Your task to perform on an android device: toggle notification dots Image 0: 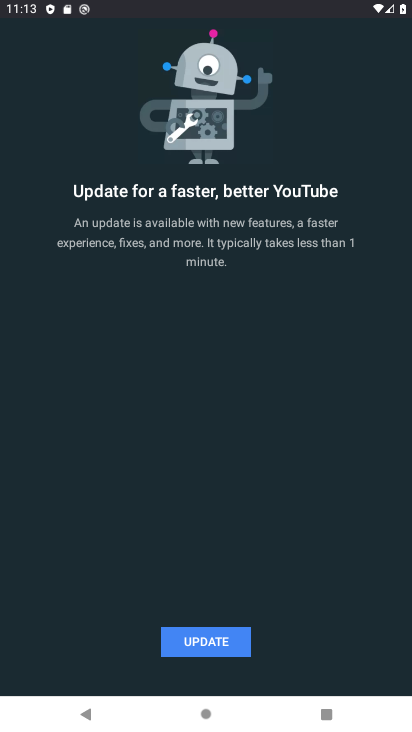
Step 0: press back button
Your task to perform on an android device: toggle notification dots Image 1: 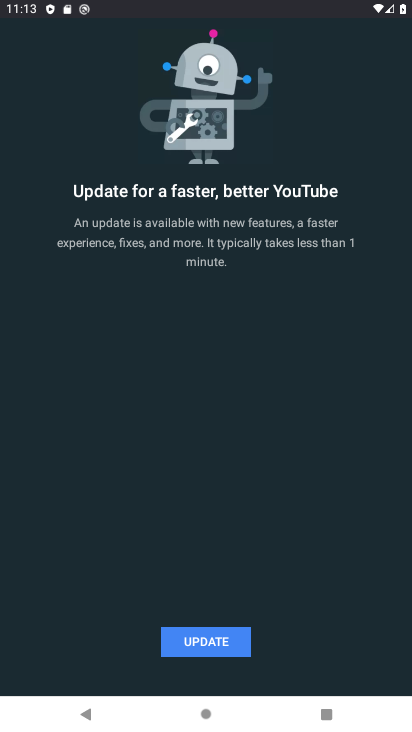
Step 1: press back button
Your task to perform on an android device: toggle notification dots Image 2: 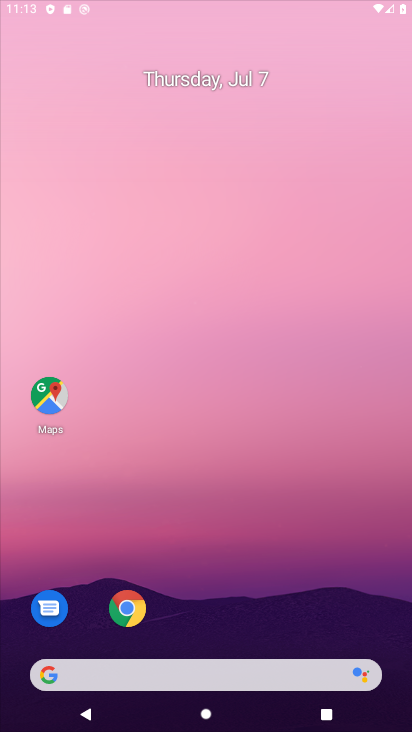
Step 2: press back button
Your task to perform on an android device: toggle notification dots Image 3: 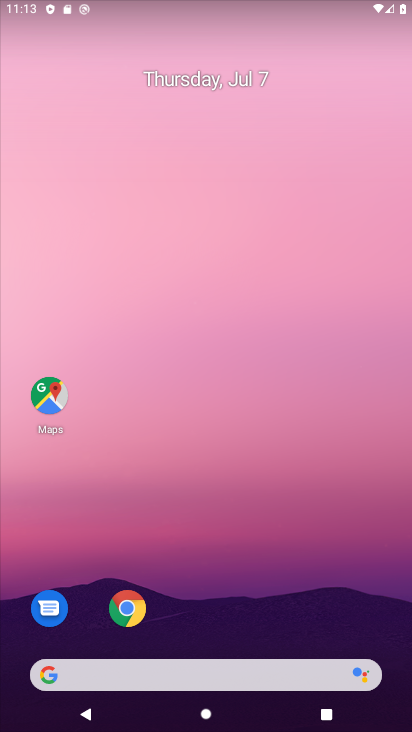
Step 3: drag from (272, 645) to (235, 80)
Your task to perform on an android device: toggle notification dots Image 4: 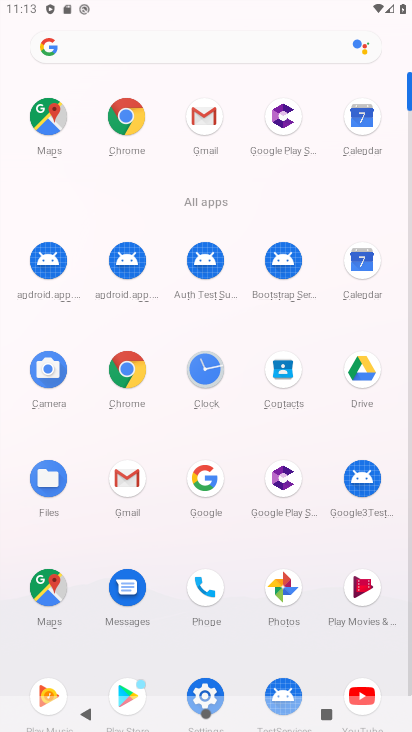
Step 4: drag from (253, 575) to (197, 197)
Your task to perform on an android device: toggle notification dots Image 5: 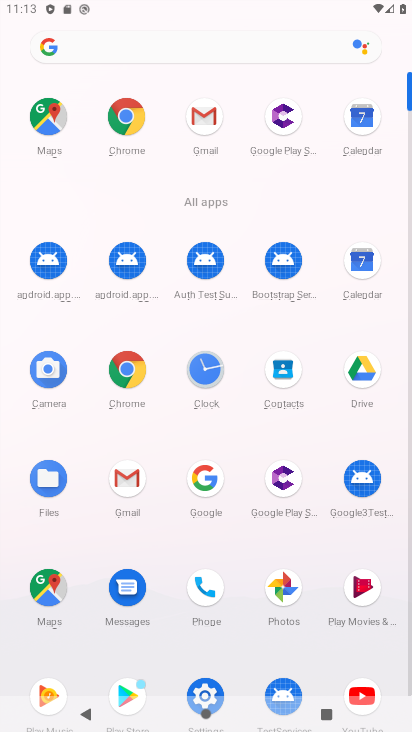
Step 5: drag from (247, 416) to (231, 243)
Your task to perform on an android device: toggle notification dots Image 6: 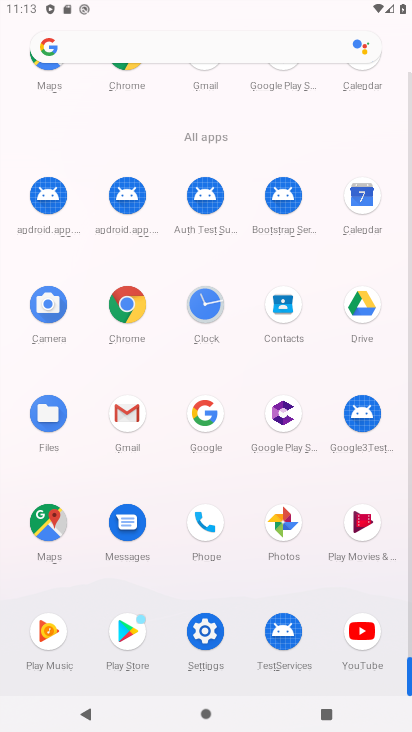
Step 6: click (205, 627)
Your task to perform on an android device: toggle notification dots Image 7: 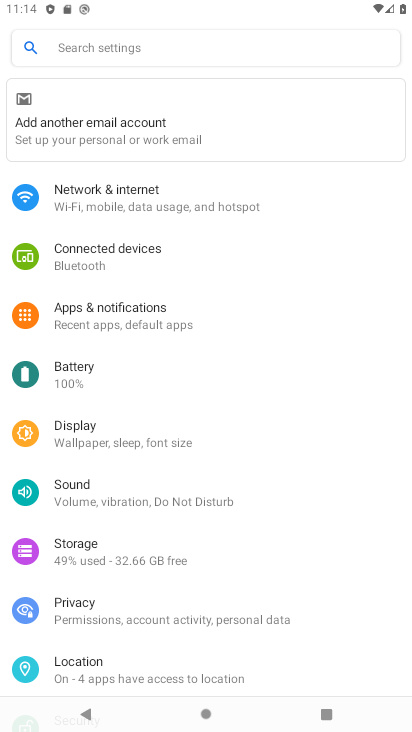
Step 7: drag from (134, 580) to (95, 205)
Your task to perform on an android device: toggle notification dots Image 8: 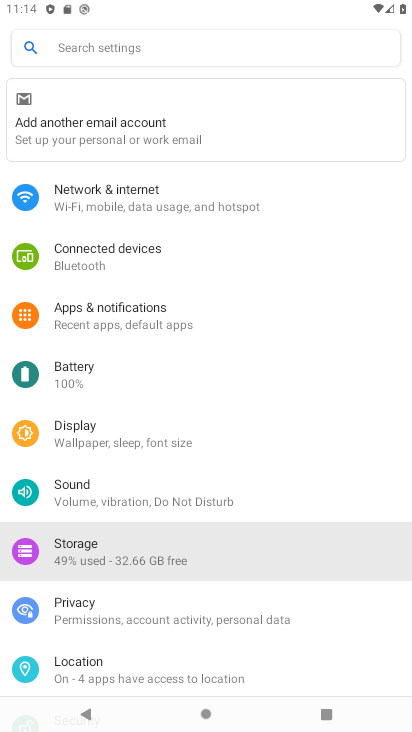
Step 8: drag from (133, 395) to (118, 190)
Your task to perform on an android device: toggle notification dots Image 9: 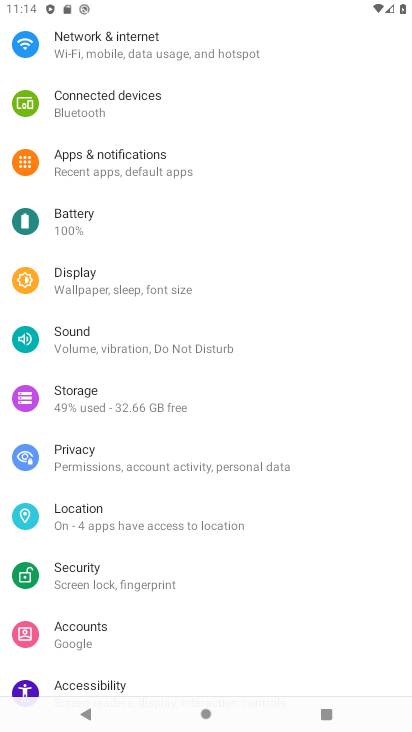
Step 9: click (130, 151)
Your task to perform on an android device: toggle notification dots Image 10: 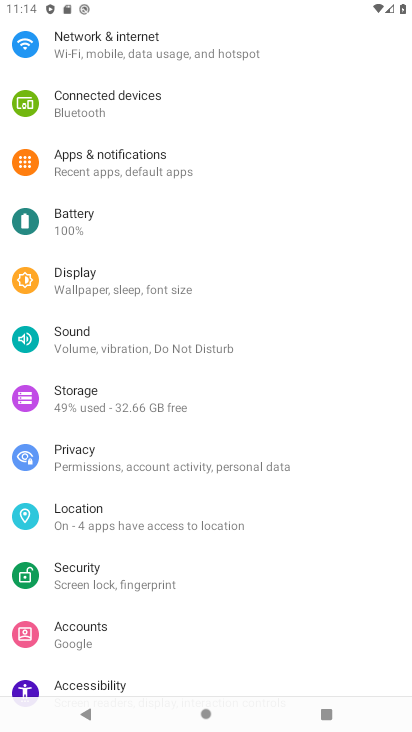
Step 10: click (135, 157)
Your task to perform on an android device: toggle notification dots Image 11: 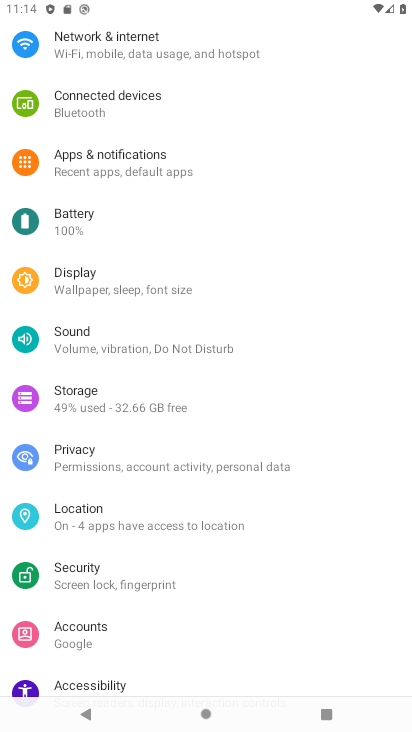
Step 11: click (137, 156)
Your task to perform on an android device: toggle notification dots Image 12: 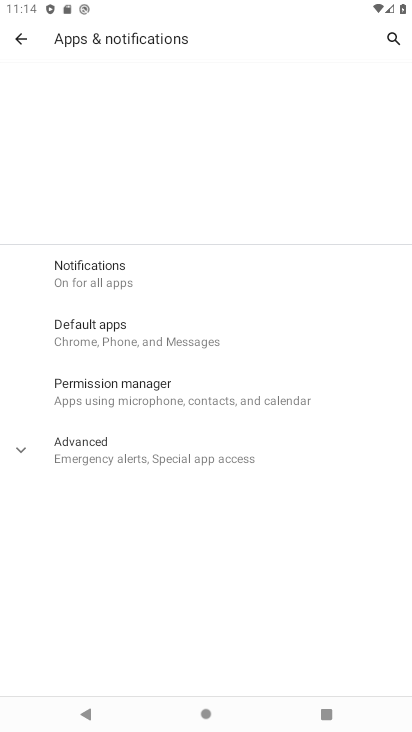
Step 12: click (92, 147)
Your task to perform on an android device: toggle notification dots Image 13: 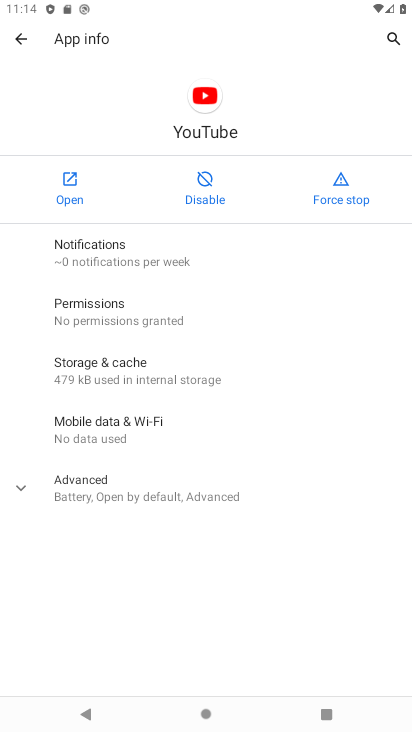
Step 13: click (133, 250)
Your task to perform on an android device: toggle notification dots Image 14: 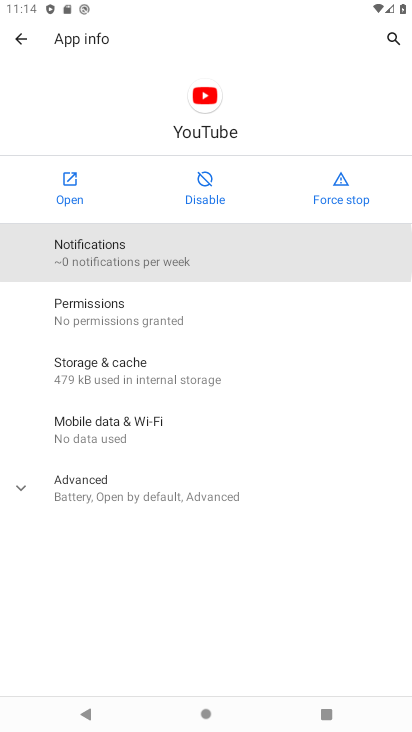
Step 14: click (140, 253)
Your task to perform on an android device: toggle notification dots Image 15: 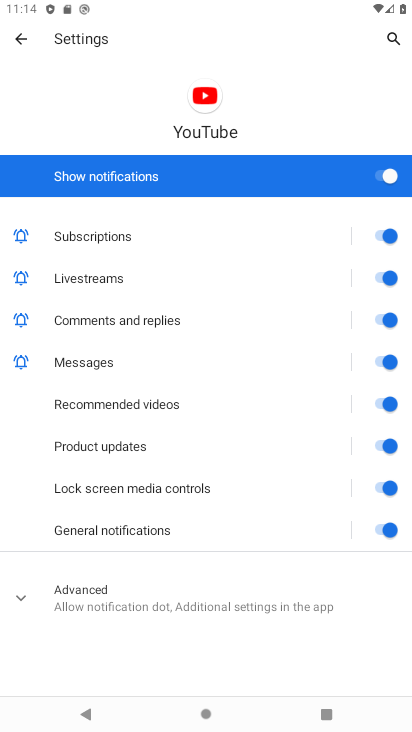
Step 15: click (20, 53)
Your task to perform on an android device: toggle notification dots Image 16: 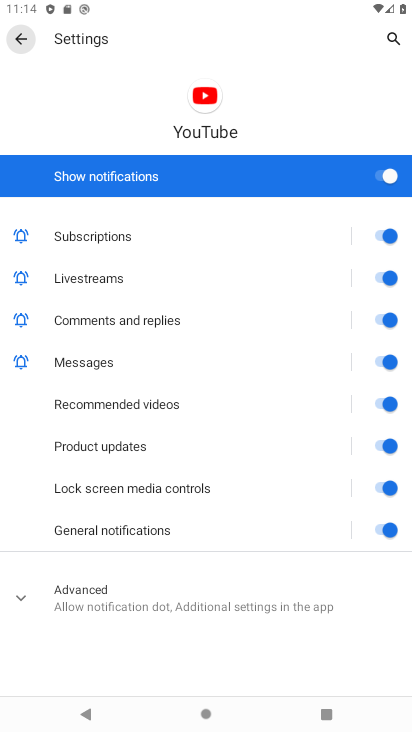
Step 16: click (44, 74)
Your task to perform on an android device: toggle notification dots Image 17: 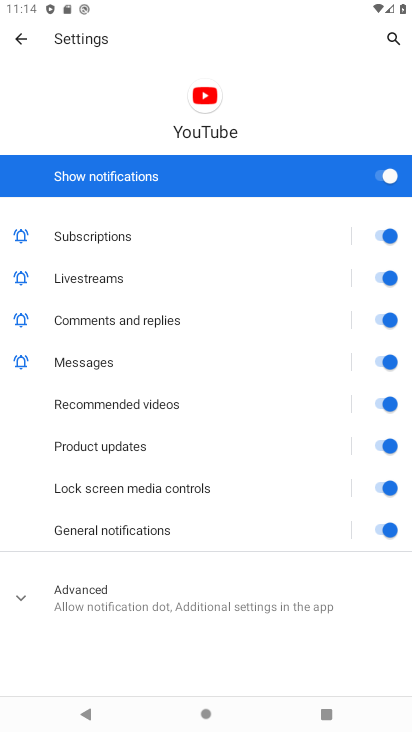
Step 17: click (46, 74)
Your task to perform on an android device: toggle notification dots Image 18: 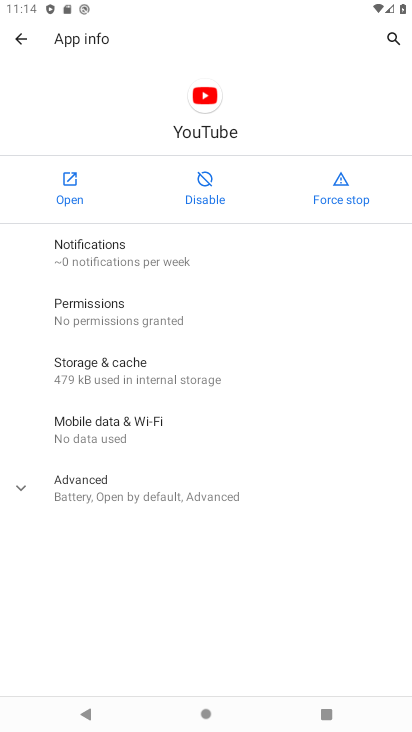
Step 18: click (23, 34)
Your task to perform on an android device: toggle notification dots Image 19: 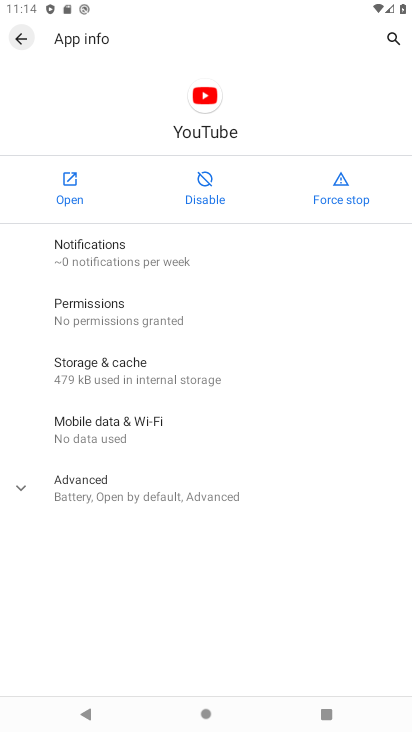
Step 19: click (32, 44)
Your task to perform on an android device: toggle notification dots Image 20: 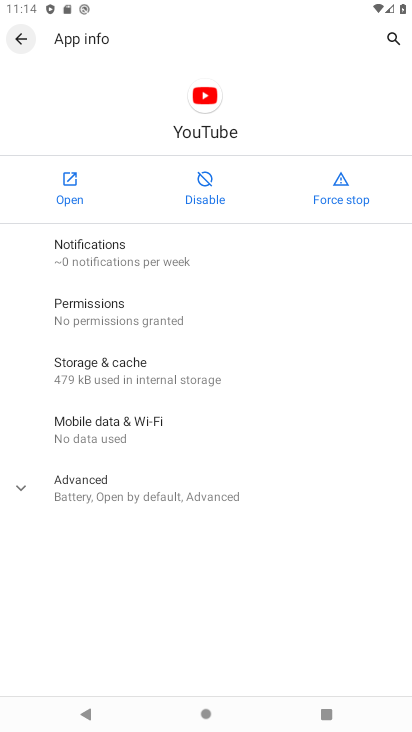
Step 20: click (33, 47)
Your task to perform on an android device: toggle notification dots Image 21: 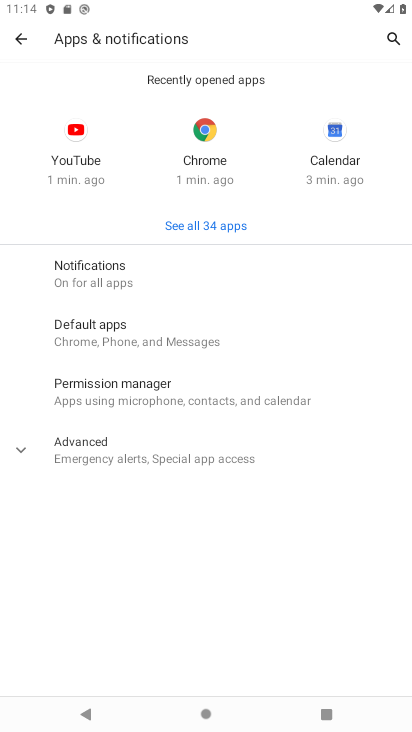
Step 21: click (18, 40)
Your task to perform on an android device: toggle notification dots Image 22: 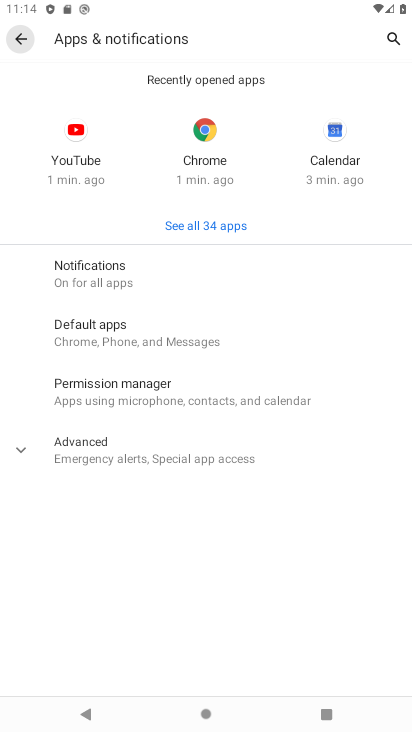
Step 22: click (21, 42)
Your task to perform on an android device: toggle notification dots Image 23: 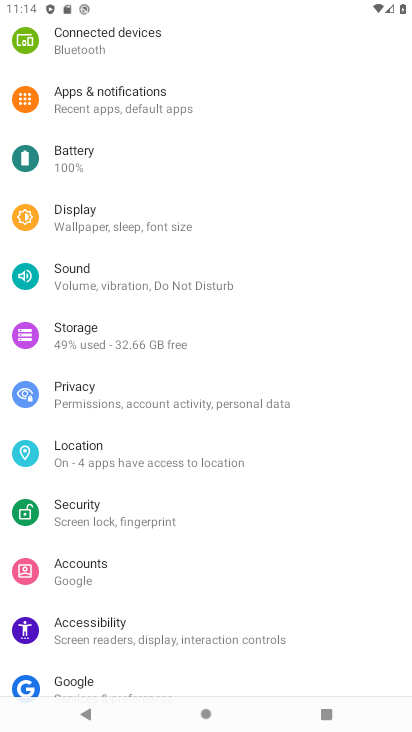
Step 23: task complete